Your task to perform on an android device: check google app version Image 0: 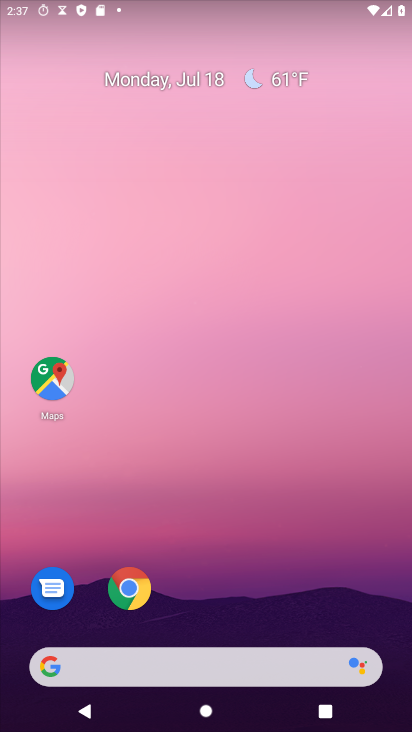
Step 0: drag from (274, 487) to (272, 35)
Your task to perform on an android device: check google app version Image 1: 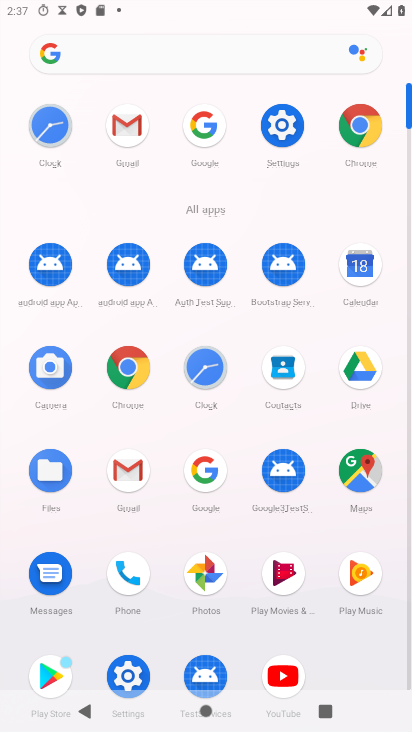
Step 1: click (276, 134)
Your task to perform on an android device: check google app version Image 2: 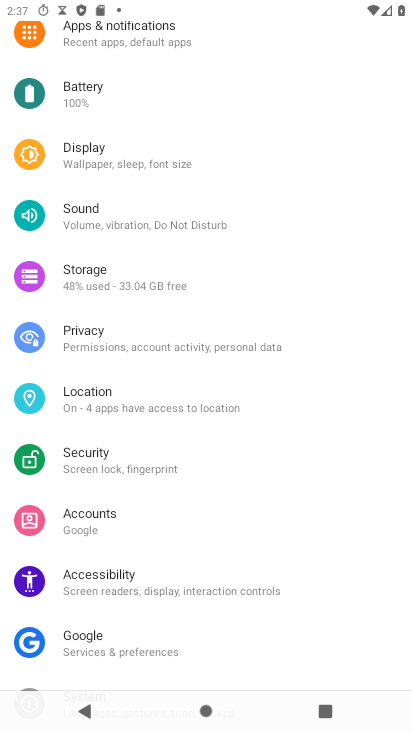
Step 2: drag from (261, 589) to (198, 52)
Your task to perform on an android device: check google app version Image 3: 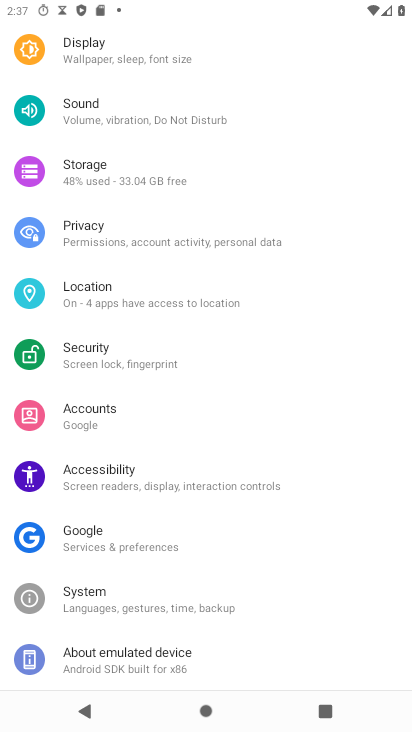
Step 3: click (130, 676)
Your task to perform on an android device: check google app version Image 4: 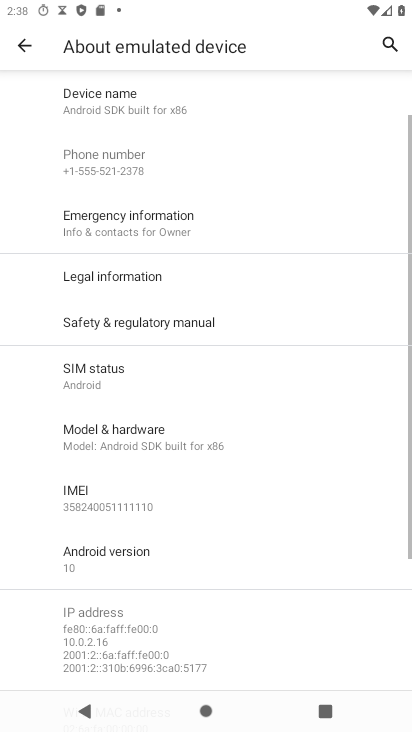
Step 4: click (145, 557)
Your task to perform on an android device: check google app version Image 5: 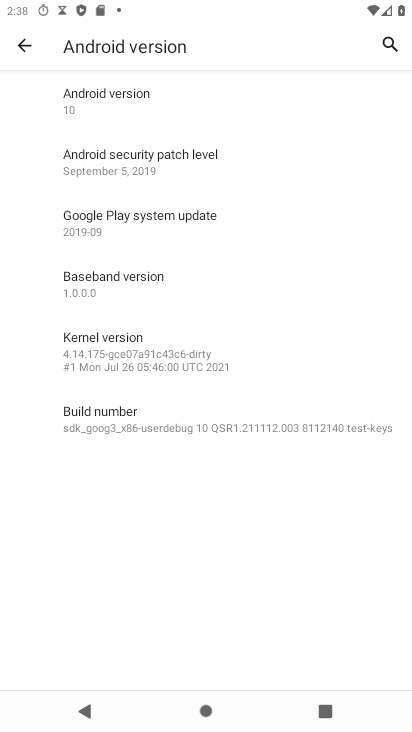
Step 5: task complete